Your task to perform on an android device: turn on bluetooth scan Image 0: 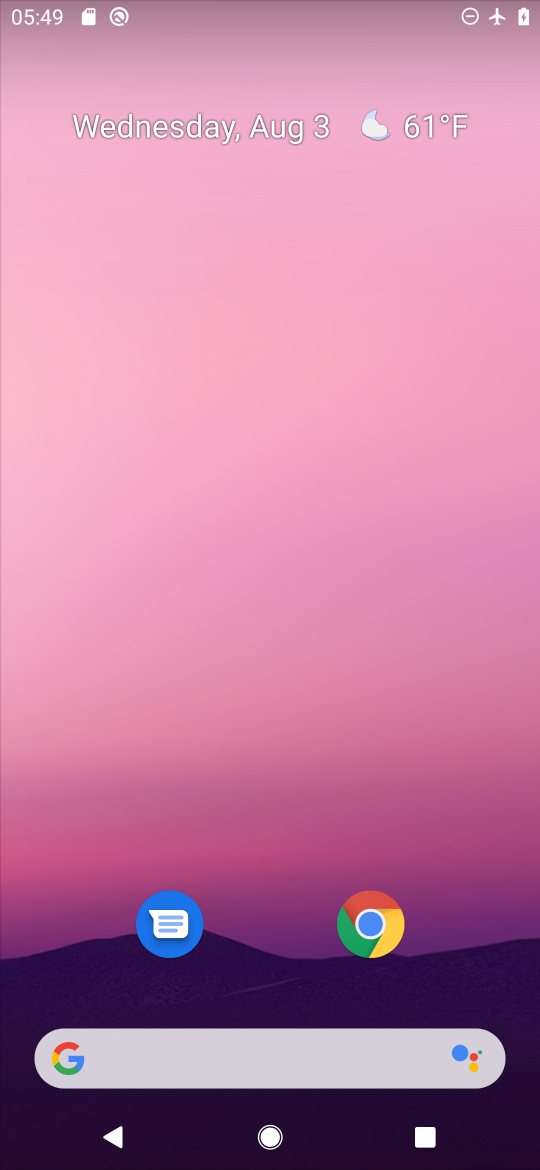
Step 0: drag from (266, 953) to (276, 181)
Your task to perform on an android device: turn on bluetooth scan Image 1: 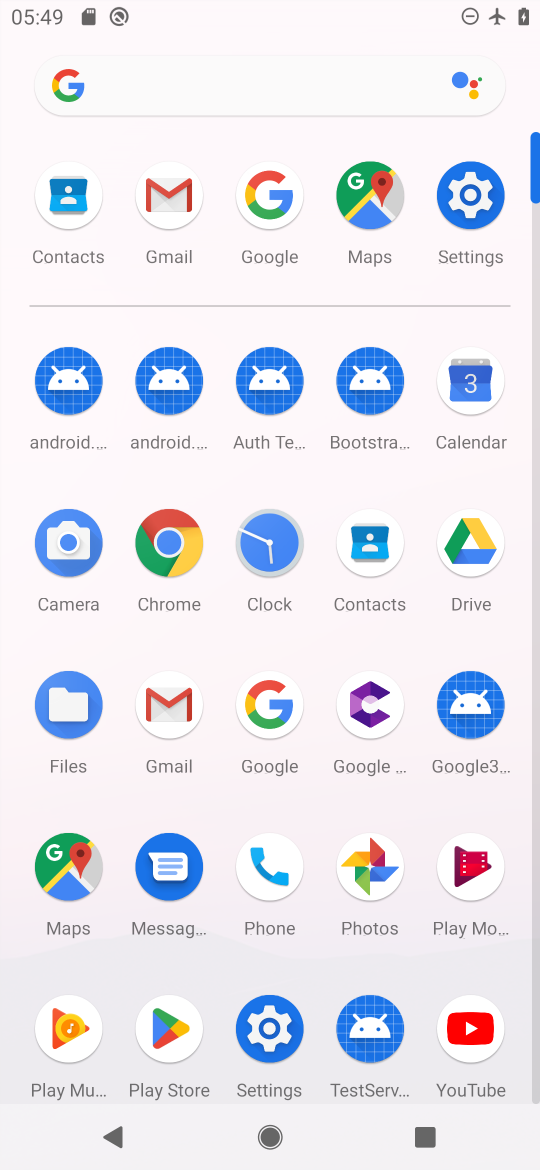
Step 1: click (446, 179)
Your task to perform on an android device: turn on bluetooth scan Image 2: 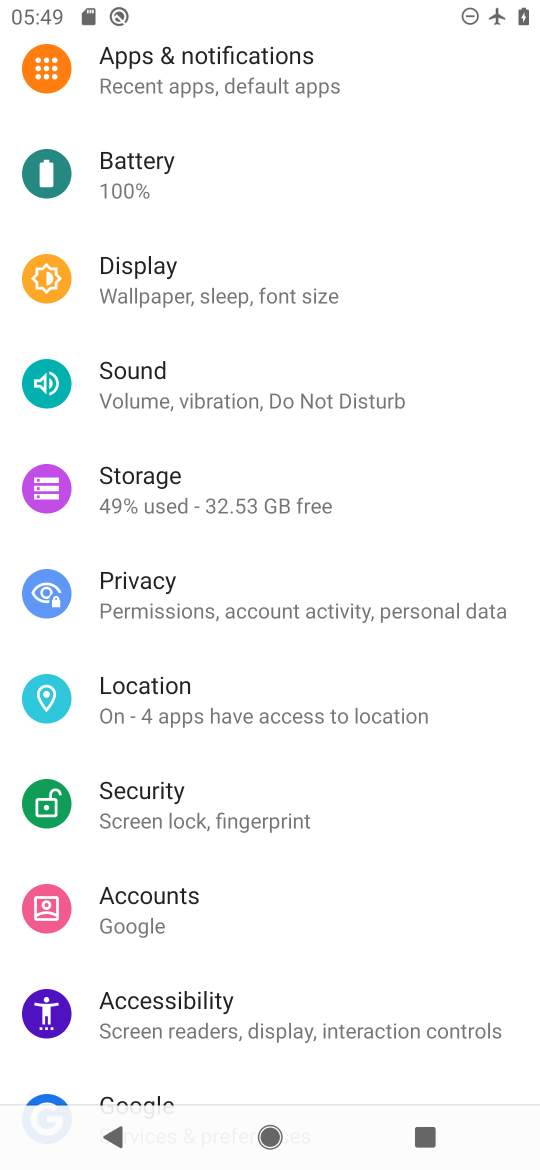
Step 2: click (147, 728)
Your task to perform on an android device: turn on bluetooth scan Image 3: 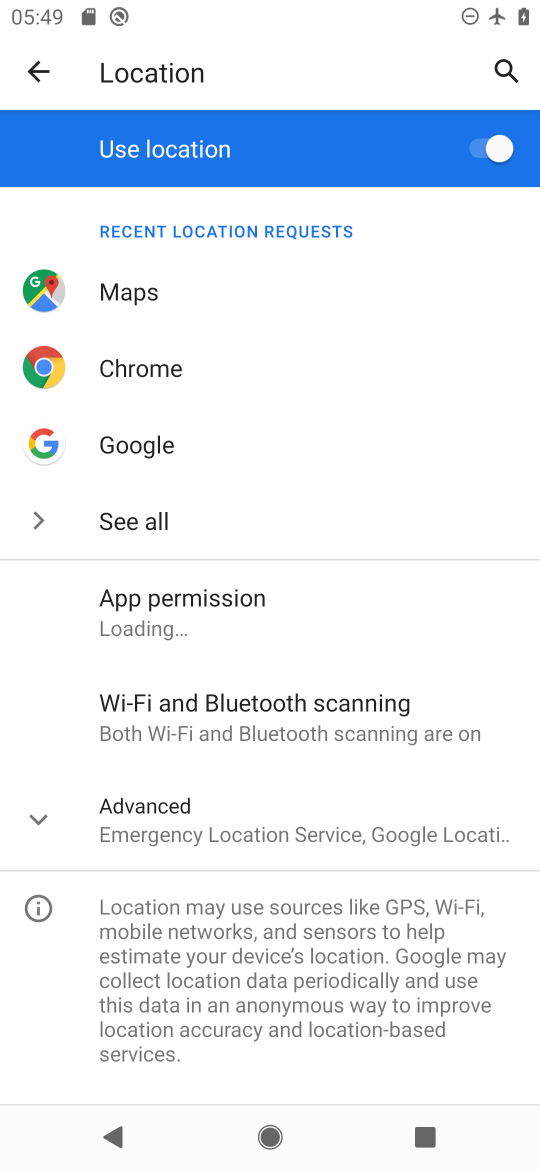
Step 3: click (269, 735)
Your task to perform on an android device: turn on bluetooth scan Image 4: 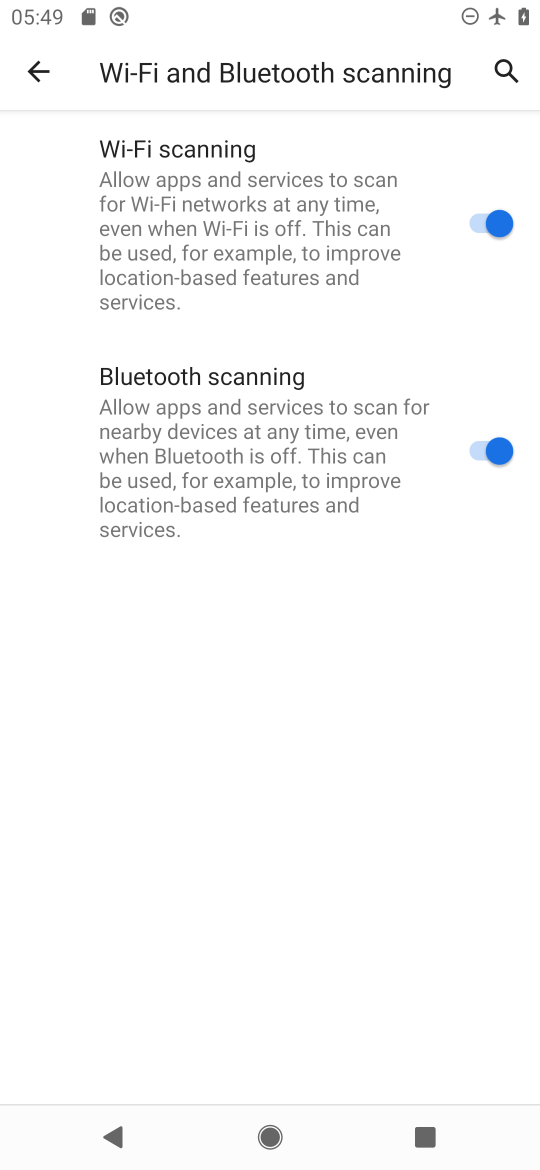
Step 4: task complete